Your task to perform on an android device: check battery use Image 0: 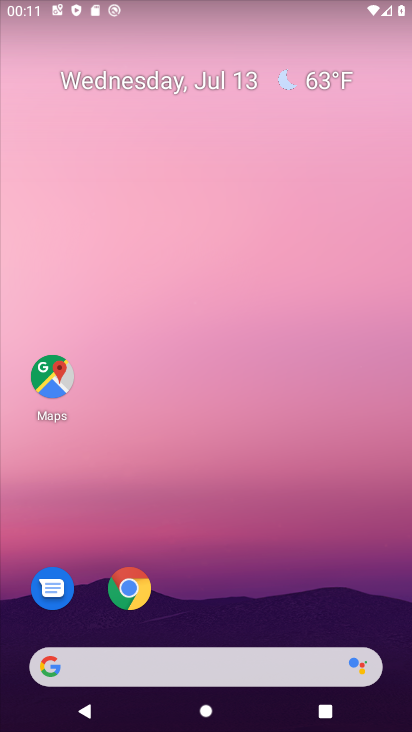
Step 0: drag from (19, 709) to (293, 6)
Your task to perform on an android device: check battery use Image 1: 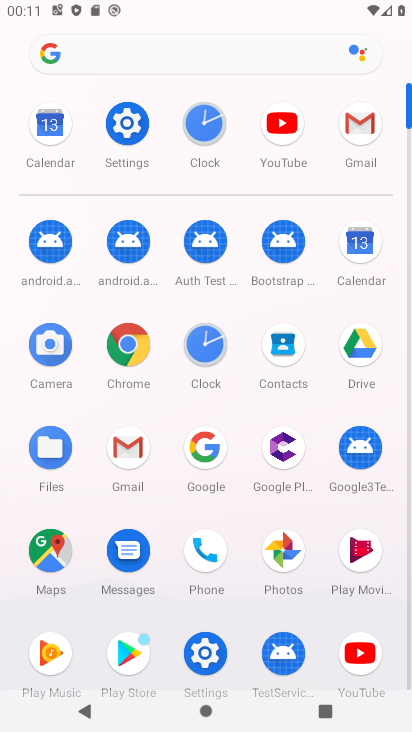
Step 1: click (202, 664)
Your task to perform on an android device: check battery use Image 2: 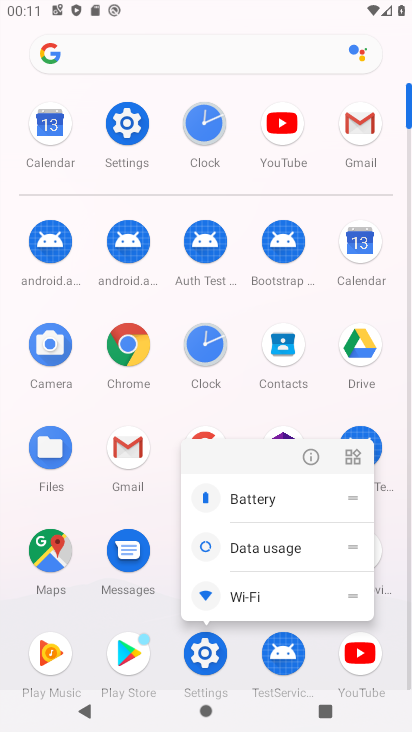
Step 2: click (213, 646)
Your task to perform on an android device: check battery use Image 3: 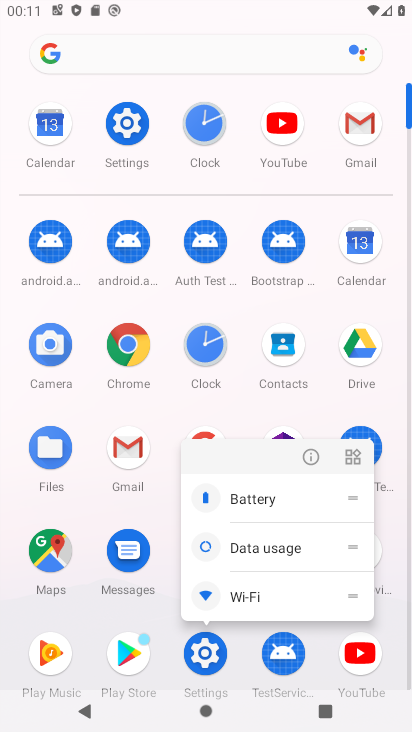
Step 3: click (199, 667)
Your task to perform on an android device: check battery use Image 4: 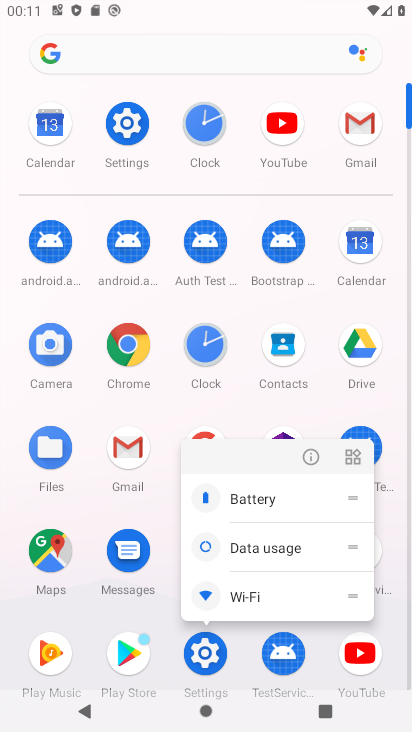
Step 4: click (230, 499)
Your task to perform on an android device: check battery use Image 5: 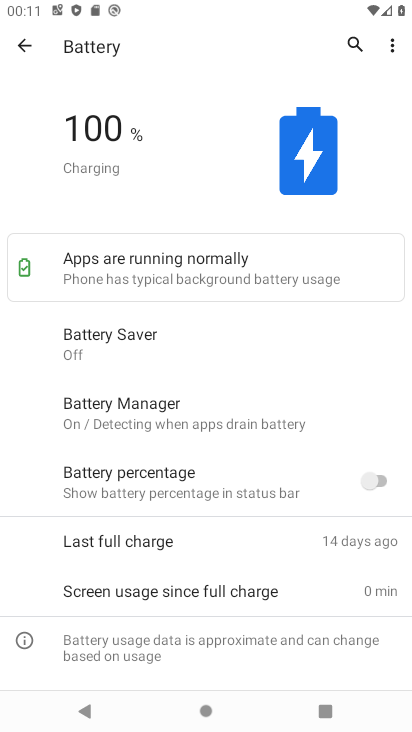
Step 5: task complete